Your task to perform on an android device: turn on data saver in the chrome app Image 0: 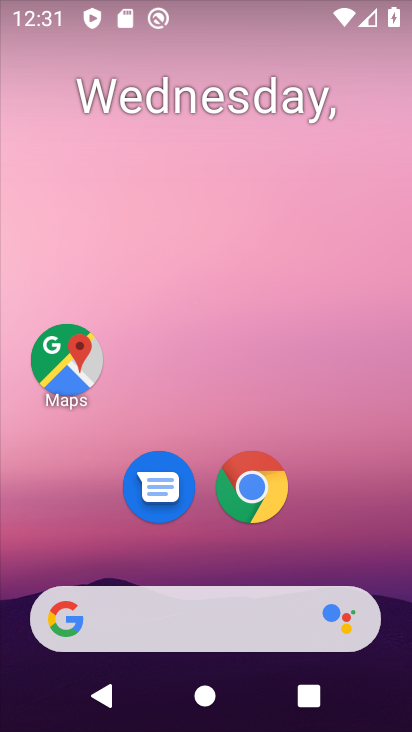
Step 0: click (255, 495)
Your task to perform on an android device: turn on data saver in the chrome app Image 1: 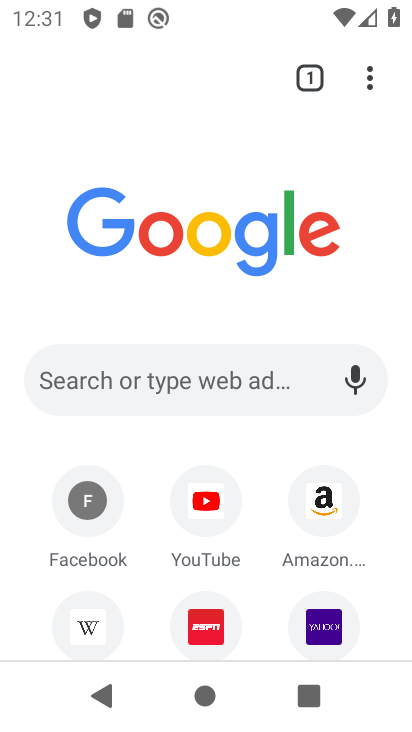
Step 1: click (369, 79)
Your task to perform on an android device: turn on data saver in the chrome app Image 2: 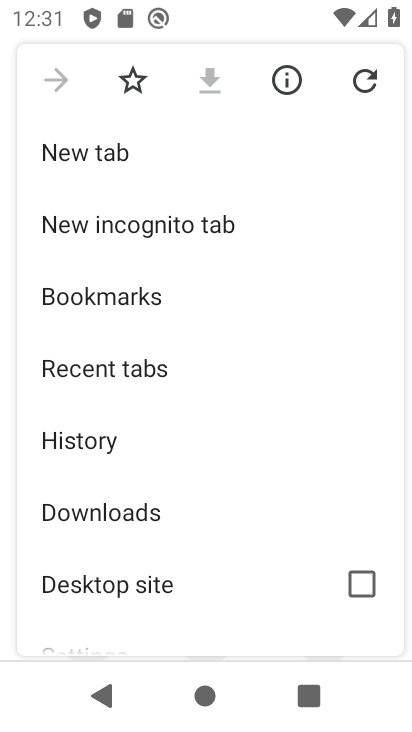
Step 2: drag from (100, 595) to (147, 202)
Your task to perform on an android device: turn on data saver in the chrome app Image 3: 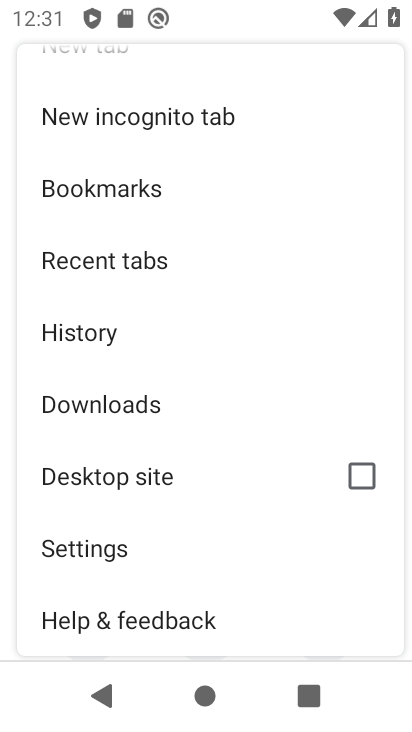
Step 3: click (77, 555)
Your task to perform on an android device: turn on data saver in the chrome app Image 4: 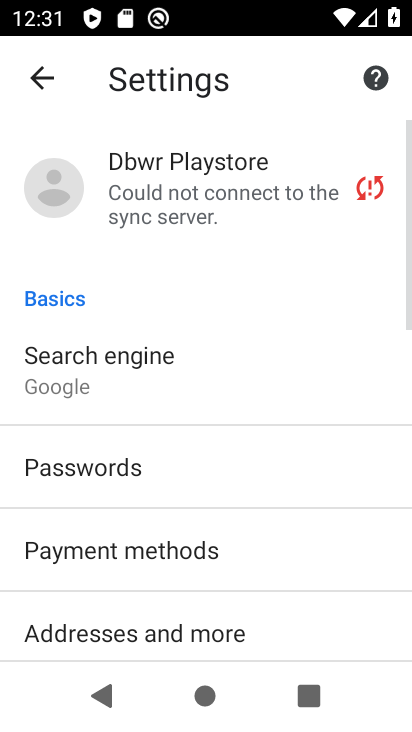
Step 4: drag from (67, 580) to (152, 311)
Your task to perform on an android device: turn on data saver in the chrome app Image 5: 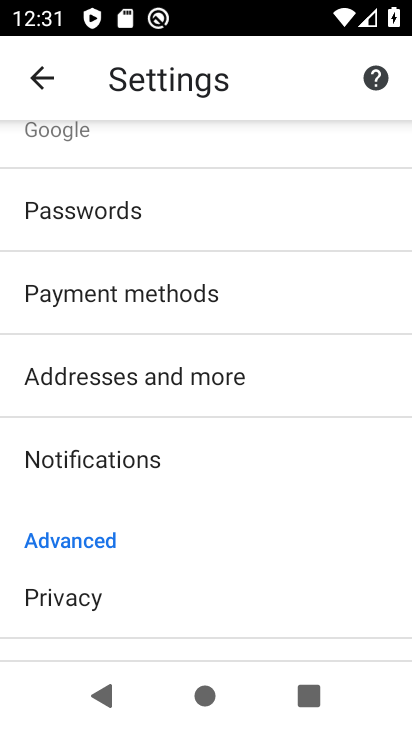
Step 5: drag from (197, 597) to (248, 435)
Your task to perform on an android device: turn on data saver in the chrome app Image 6: 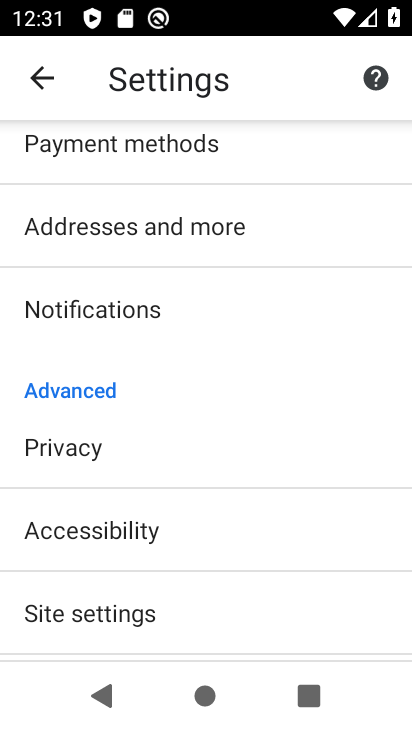
Step 6: drag from (162, 601) to (184, 328)
Your task to perform on an android device: turn on data saver in the chrome app Image 7: 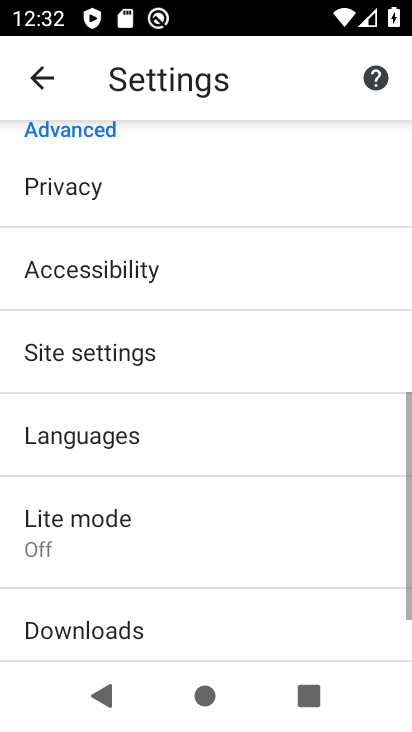
Step 7: click (49, 545)
Your task to perform on an android device: turn on data saver in the chrome app Image 8: 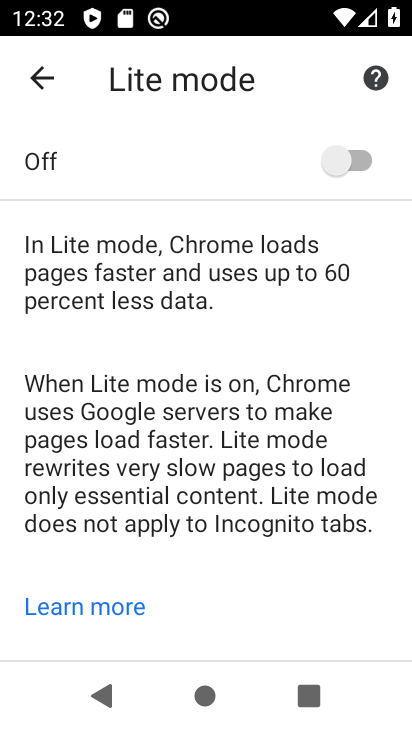
Step 8: click (359, 156)
Your task to perform on an android device: turn on data saver in the chrome app Image 9: 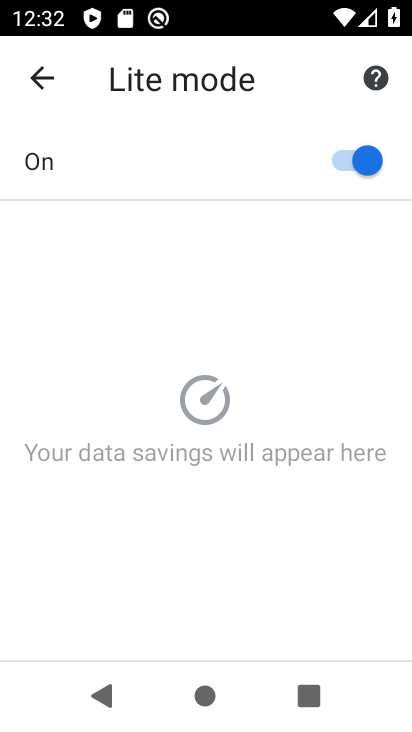
Step 9: task complete